Your task to perform on an android device: Add "apple airpods" to the cart on newegg.com, then select checkout. Image 0: 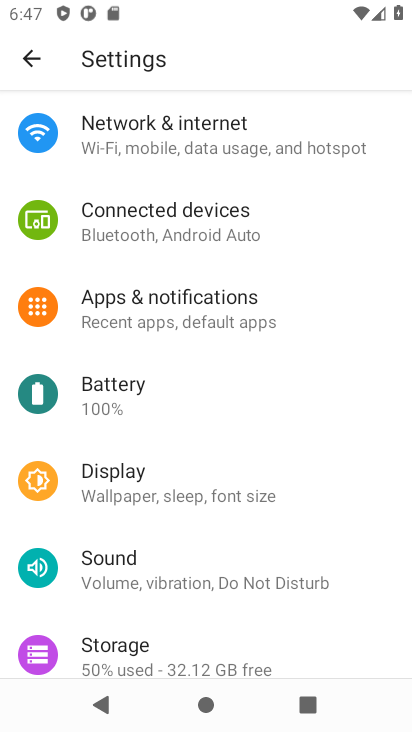
Step 0: press home button
Your task to perform on an android device: Add "apple airpods" to the cart on newegg.com, then select checkout. Image 1: 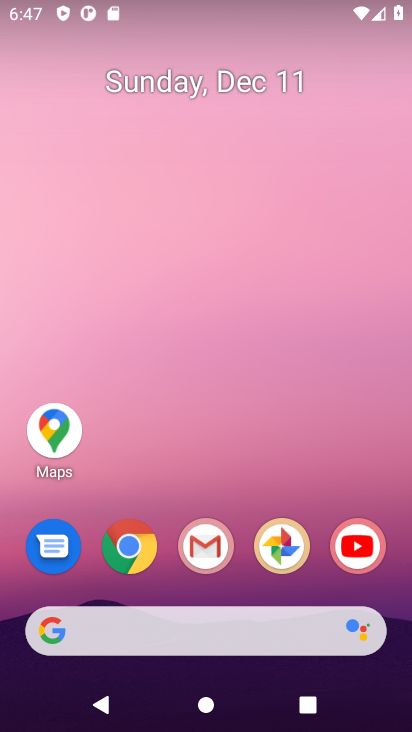
Step 1: click (126, 556)
Your task to perform on an android device: Add "apple airpods" to the cart on newegg.com, then select checkout. Image 2: 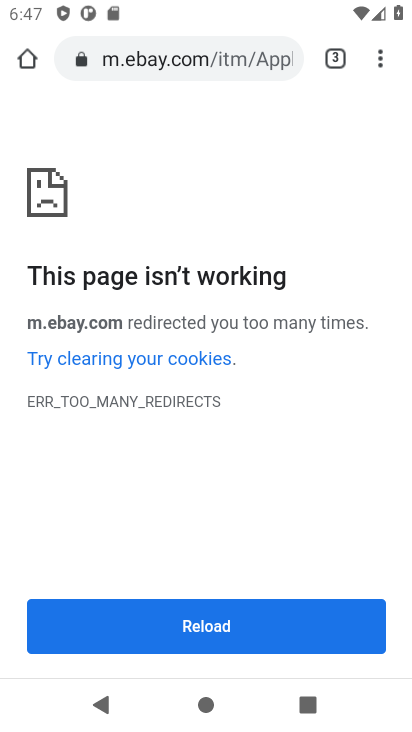
Step 2: click (143, 68)
Your task to perform on an android device: Add "apple airpods" to the cart on newegg.com, then select checkout. Image 3: 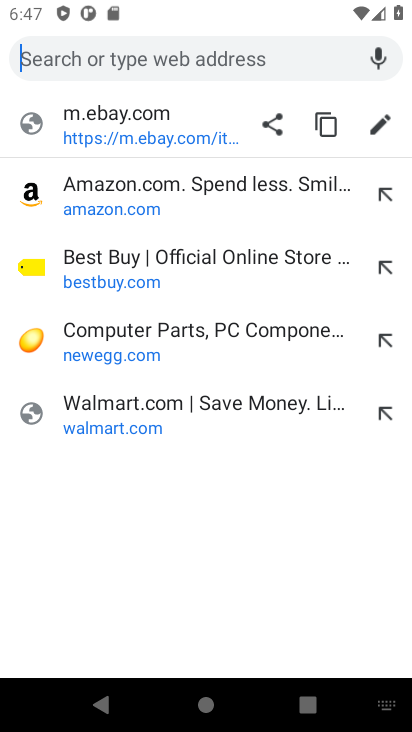
Step 3: click (67, 343)
Your task to perform on an android device: Add "apple airpods" to the cart on newegg.com, then select checkout. Image 4: 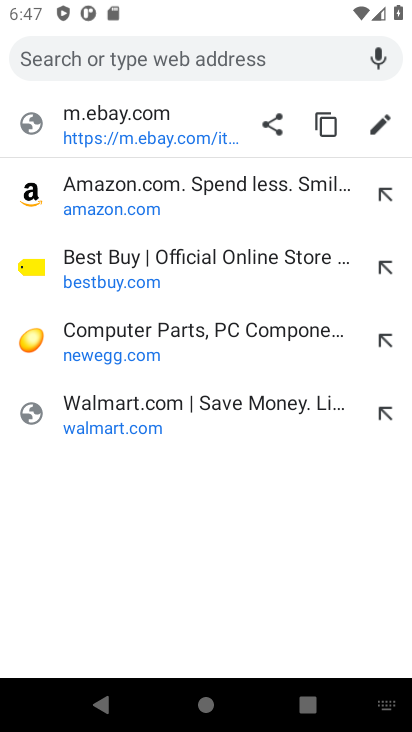
Step 4: click (92, 349)
Your task to perform on an android device: Add "apple airpods" to the cart on newegg.com, then select checkout. Image 5: 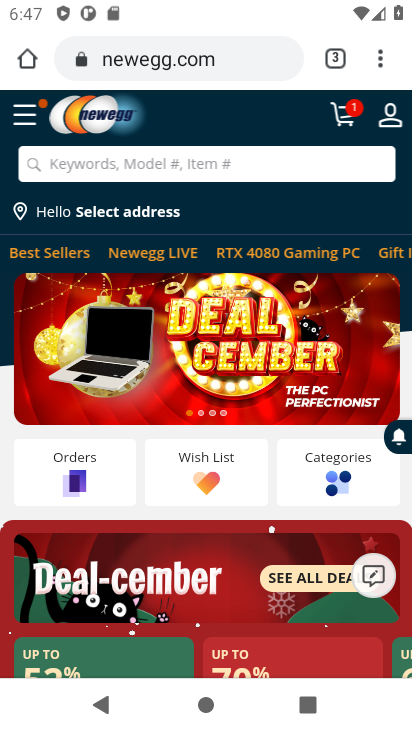
Step 5: click (154, 160)
Your task to perform on an android device: Add "apple airpods" to the cart on newegg.com, then select checkout. Image 6: 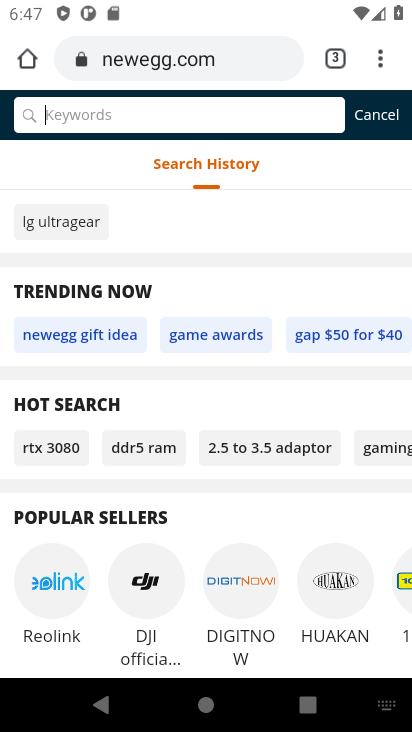
Step 6: type "apple airpods"
Your task to perform on an android device: Add "apple airpods" to the cart on newegg.com, then select checkout. Image 7: 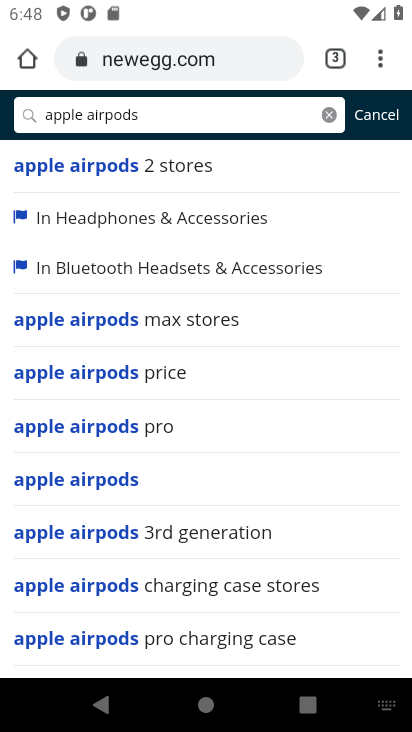
Step 7: click (79, 483)
Your task to perform on an android device: Add "apple airpods" to the cart on newegg.com, then select checkout. Image 8: 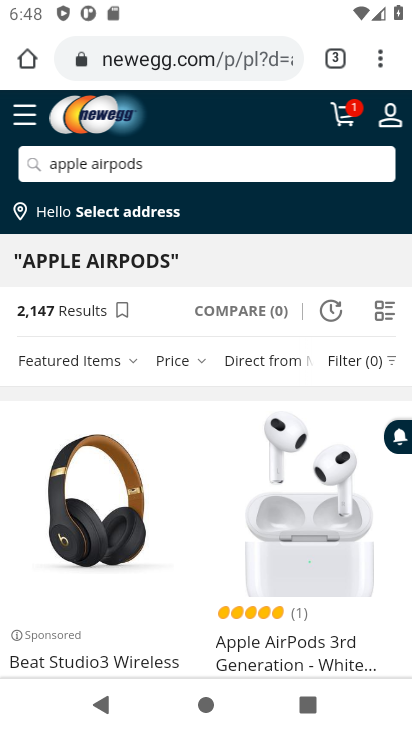
Step 8: drag from (190, 422) to (188, 338)
Your task to perform on an android device: Add "apple airpods" to the cart on newegg.com, then select checkout. Image 9: 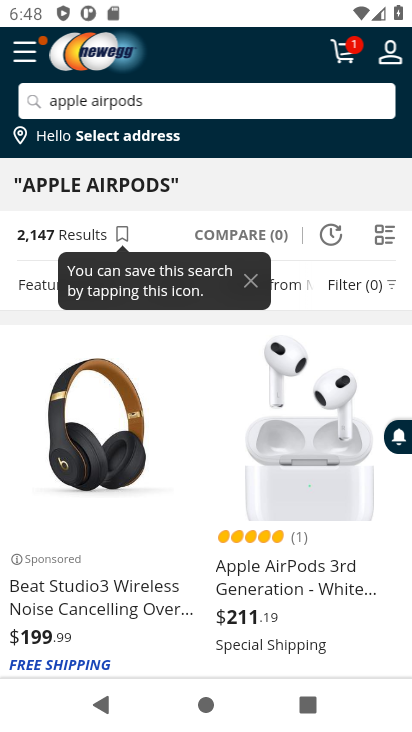
Step 9: click (281, 585)
Your task to perform on an android device: Add "apple airpods" to the cart on newegg.com, then select checkout. Image 10: 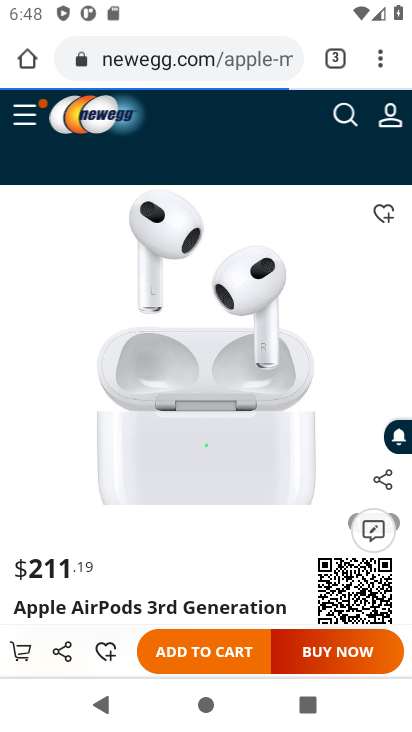
Step 10: click (194, 651)
Your task to perform on an android device: Add "apple airpods" to the cart on newegg.com, then select checkout. Image 11: 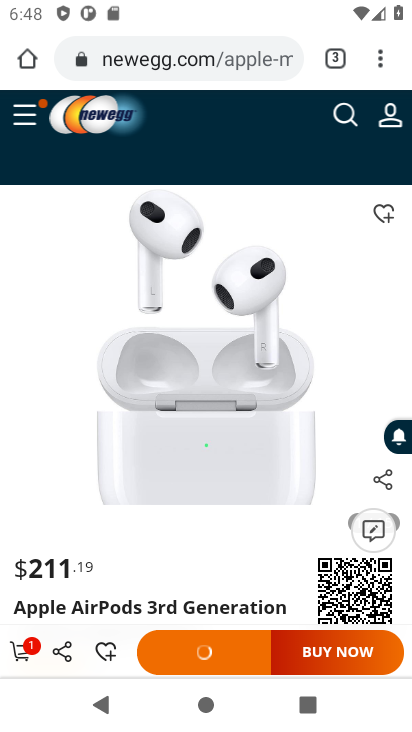
Step 11: click (18, 657)
Your task to perform on an android device: Add "apple airpods" to the cart on newegg.com, then select checkout. Image 12: 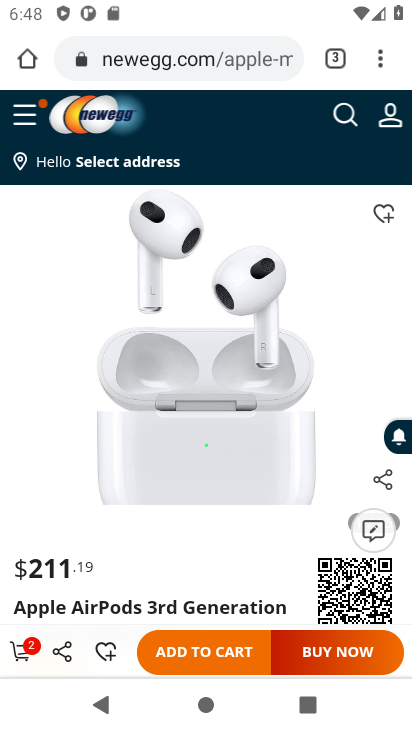
Step 12: click (18, 657)
Your task to perform on an android device: Add "apple airpods" to the cart on newegg.com, then select checkout. Image 13: 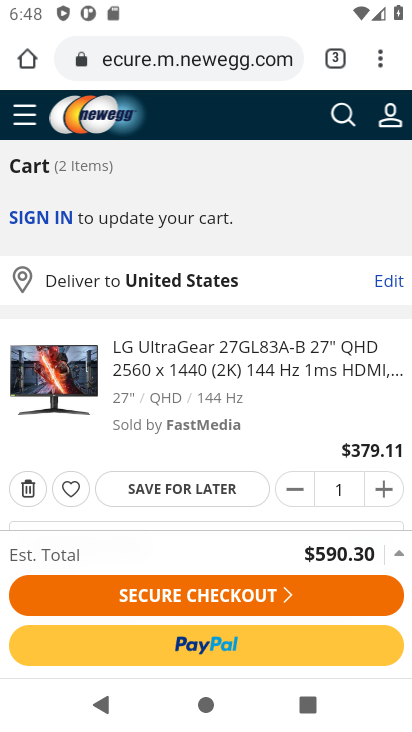
Step 13: click (158, 591)
Your task to perform on an android device: Add "apple airpods" to the cart on newegg.com, then select checkout. Image 14: 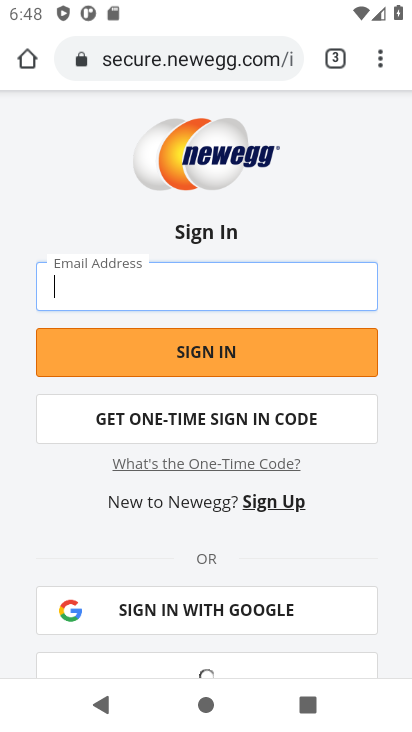
Step 14: task complete